Your task to perform on an android device: move a message to another label in the gmail app Image 0: 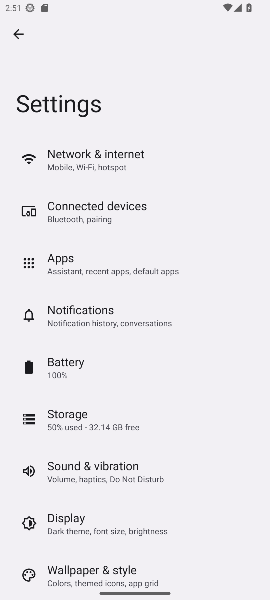
Step 0: press home button
Your task to perform on an android device: move a message to another label in the gmail app Image 1: 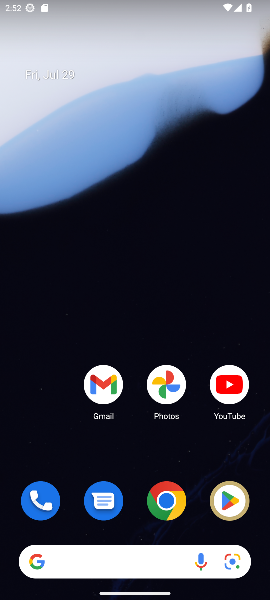
Step 1: click (190, 475)
Your task to perform on an android device: move a message to another label in the gmail app Image 2: 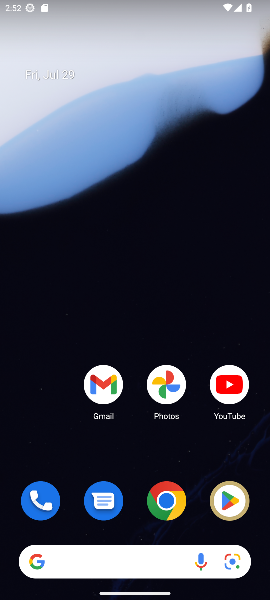
Step 2: click (107, 365)
Your task to perform on an android device: move a message to another label in the gmail app Image 3: 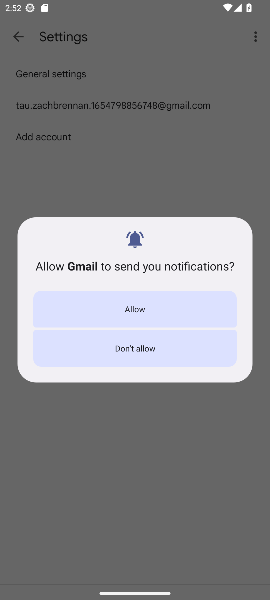
Step 3: click (134, 312)
Your task to perform on an android device: move a message to another label in the gmail app Image 4: 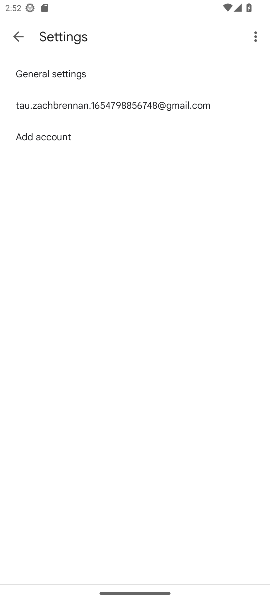
Step 4: click (19, 32)
Your task to perform on an android device: move a message to another label in the gmail app Image 5: 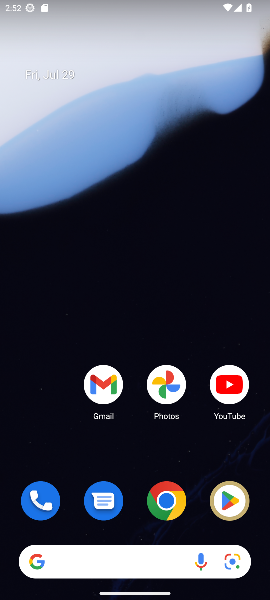
Step 5: click (113, 401)
Your task to perform on an android device: move a message to another label in the gmail app Image 6: 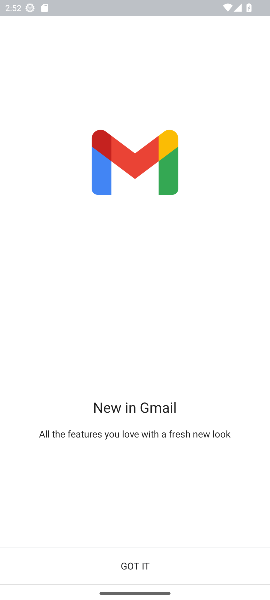
Step 6: click (126, 559)
Your task to perform on an android device: move a message to another label in the gmail app Image 7: 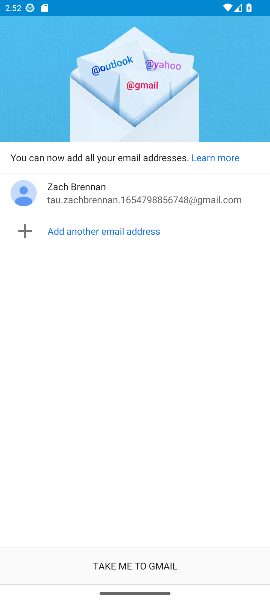
Step 7: click (126, 559)
Your task to perform on an android device: move a message to another label in the gmail app Image 8: 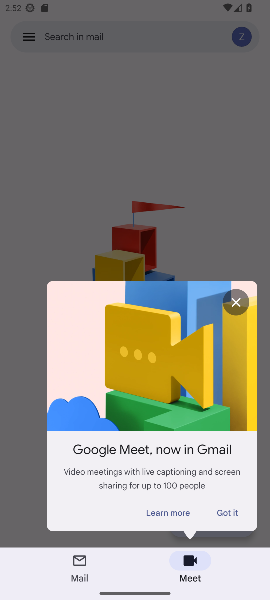
Step 8: click (216, 523)
Your task to perform on an android device: move a message to another label in the gmail app Image 9: 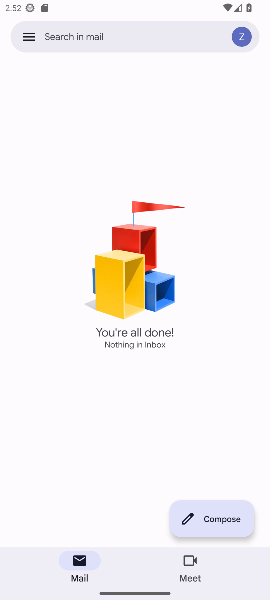
Step 9: click (35, 36)
Your task to perform on an android device: move a message to another label in the gmail app Image 10: 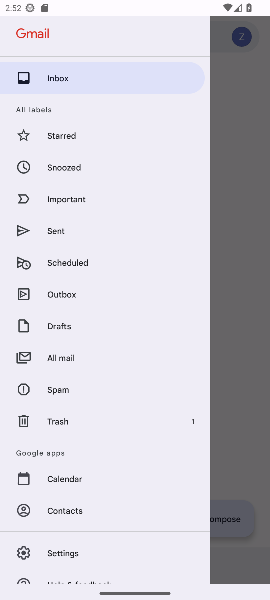
Step 10: click (68, 355)
Your task to perform on an android device: move a message to another label in the gmail app Image 11: 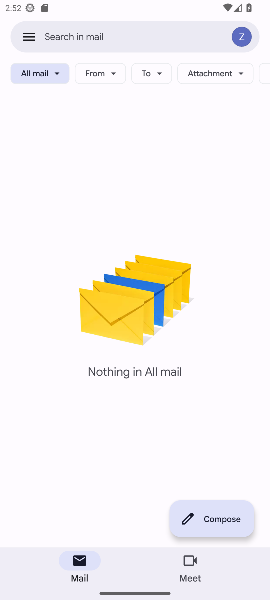
Step 11: task complete